Your task to perform on an android device: Open battery settings Image 0: 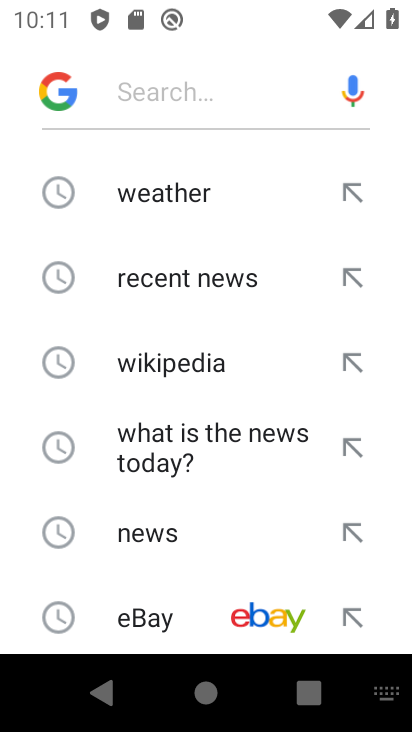
Step 0: press home button
Your task to perform on an android device: Open battery settings Image 1: 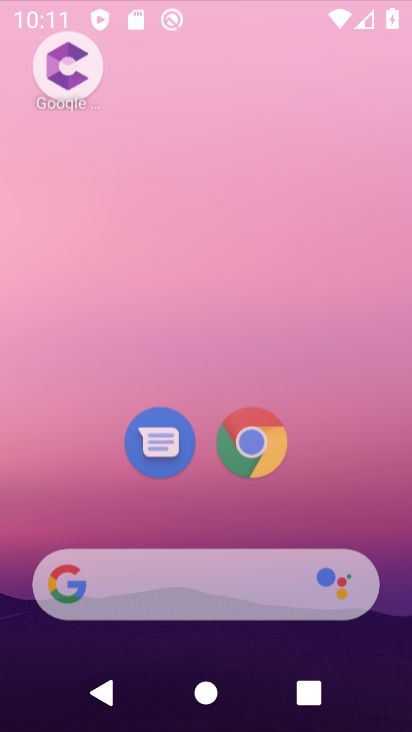
Step 1: drag from (190, 588) to (273, 141)
Your task to perform on an android device: Open battery settings Image 2: 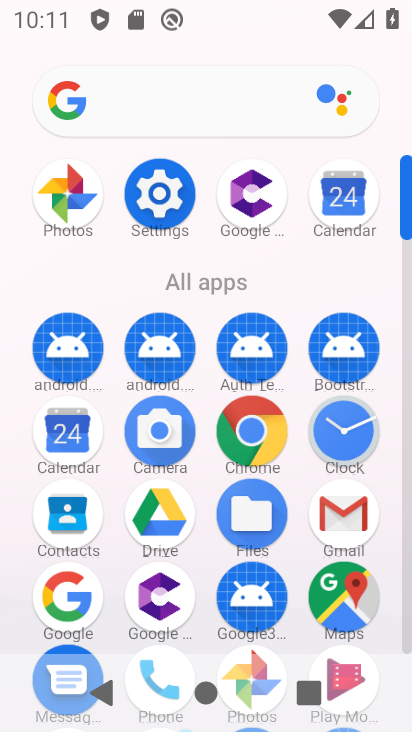
Step 2: drag from (239, 540) to (263, 239)
Your task to perform on an android device: Open battery settings Image 3: 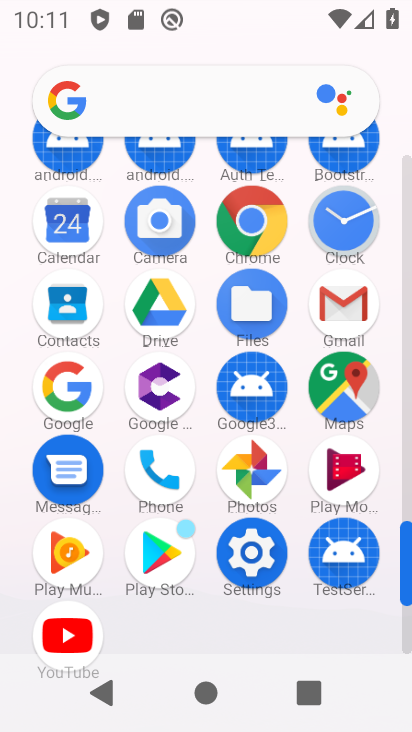
Step 3: click (245, 569)
Your task to perform on an android device: Open battery settings Image 4: 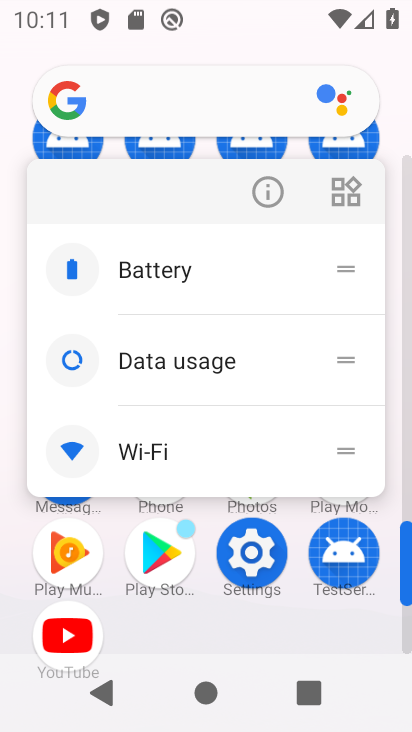
Step 4: click (176, 295)
Your task to perform on an android device: Open battery settings Image 5: 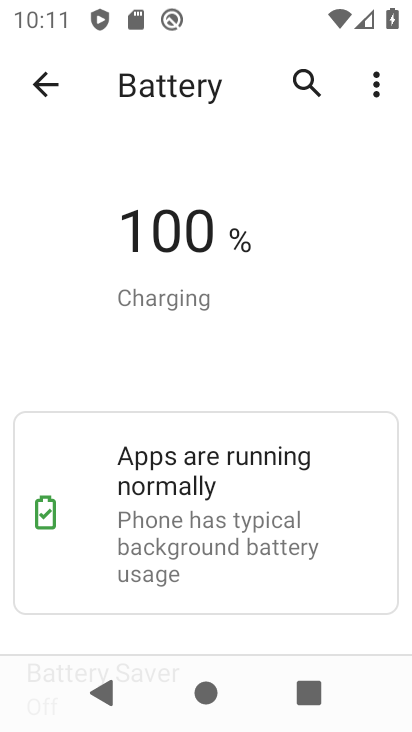
Step 5: task complete